Your task to perform on an android device: Go to privacy settings Image 0: 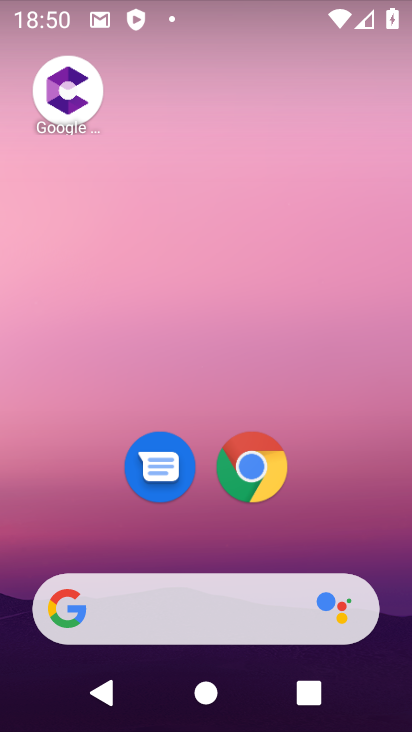
Step 0: drag from (322, 517) to (213, 82)
Your task to perform on an android device: Go to privacy settings Image 1: 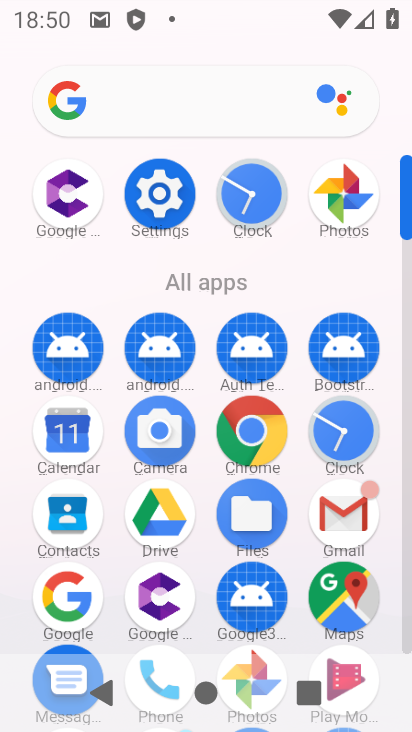
Step 1: click (155, 195)
Your task to perform on an android device: Go to privacy settings Image 2: 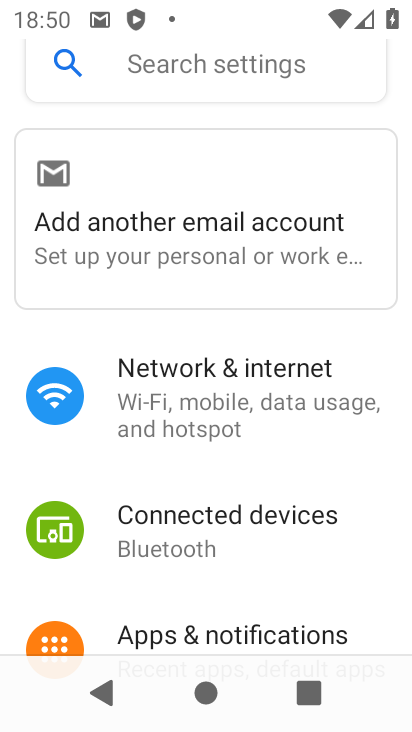
Step 2: drag from (228, 572) to (216, 339)
Your task to perform on an android device: Go to privacy settings Image 3: 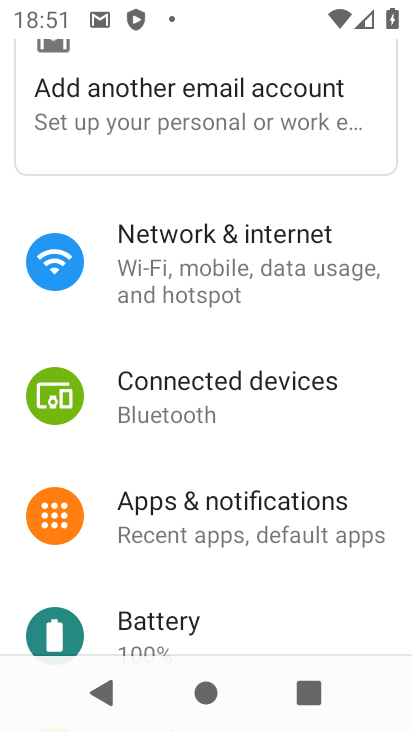
Step 3: drag from (212, 546) to (170, 333)
Your task to perform on an android device: Go to privacy settings Image 4: 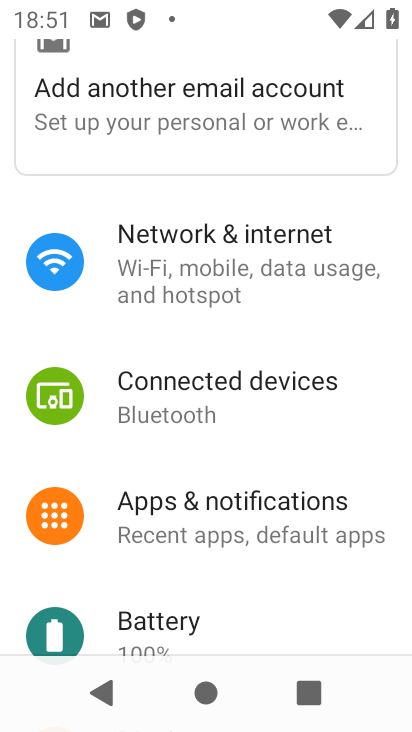
Step 4: drag from (212, 592) to (189, 286)
Your task to perform on an android device: Go to privacy settings Image 5: 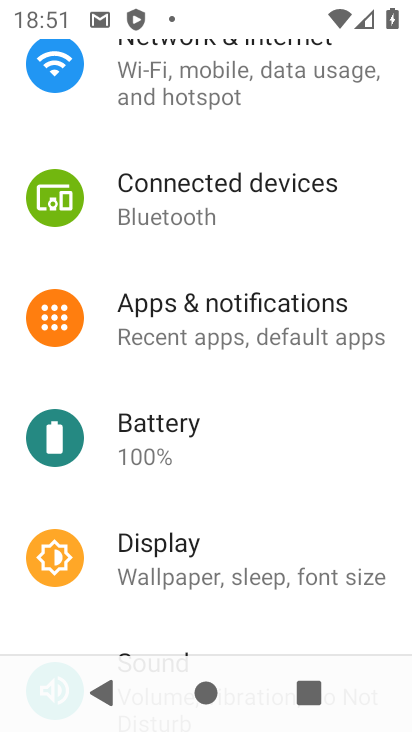
Step 5: drag from (218, 484) to (198, 179)
Your task to perform on an android device: Go to privacy settings Image 6: 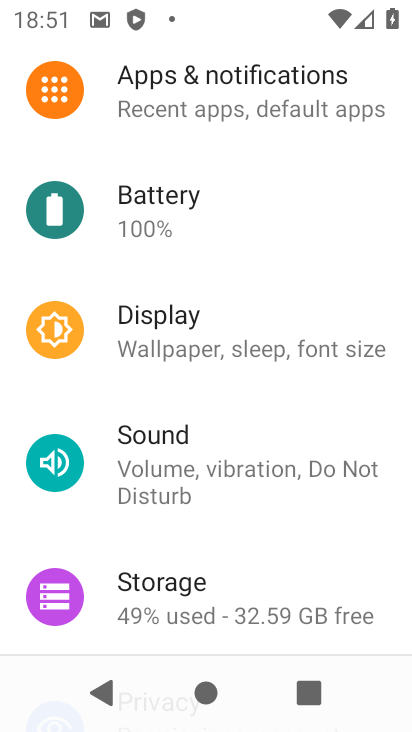
Step 6: drag from (207, 509) to (197, 288)
Your task to perform on an android device: Go to privacy settings Image 7: 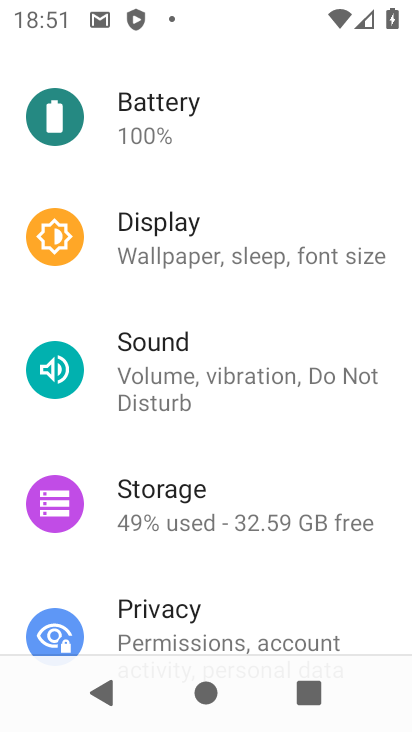
Step 7: drag from (190, 435) to (162, 232)
Your task to perform on an android device: Go to privacy settings Image 8: 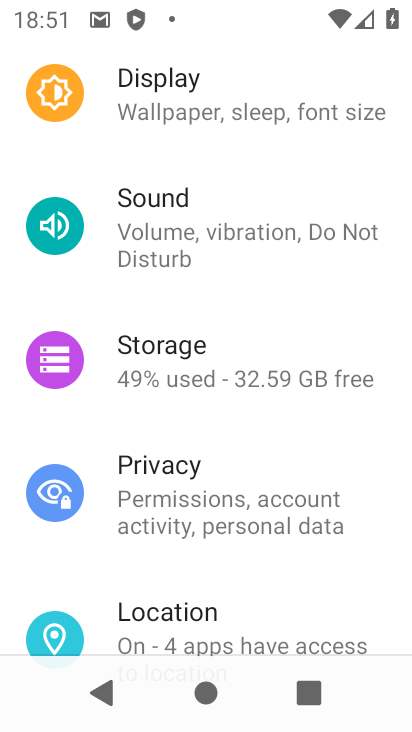
Step 8: click (157, 461)
Your task to perform on an android device: Go to privacy settings Image 9: 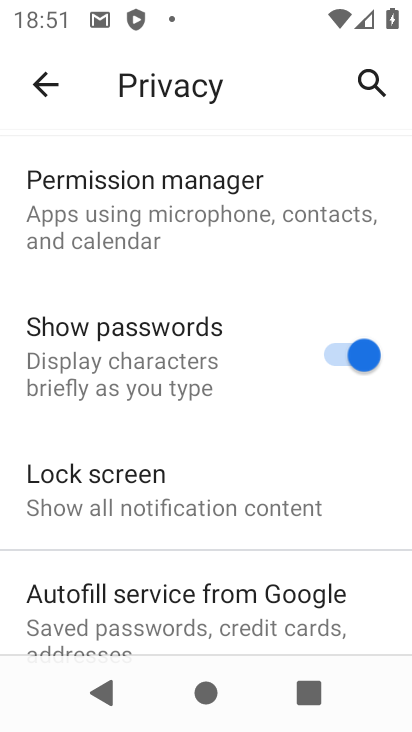
Step 9: task complete